Your task to perform on an android device: see sites visited before in the chrome app Image 0: 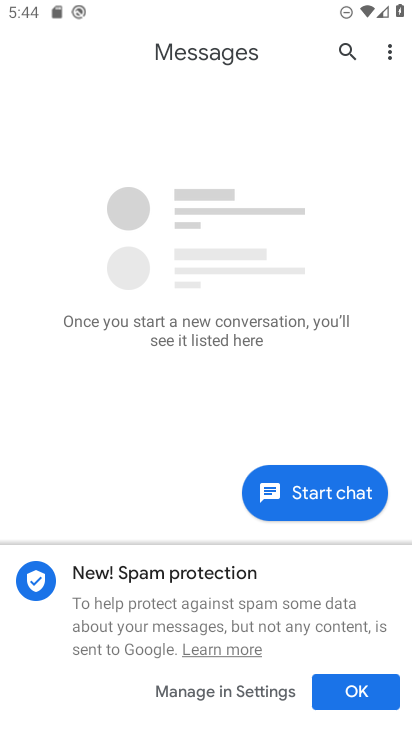
Step 0: press home button
Your task to perform on an android device: see sites visited before in the chrome app Image 1: 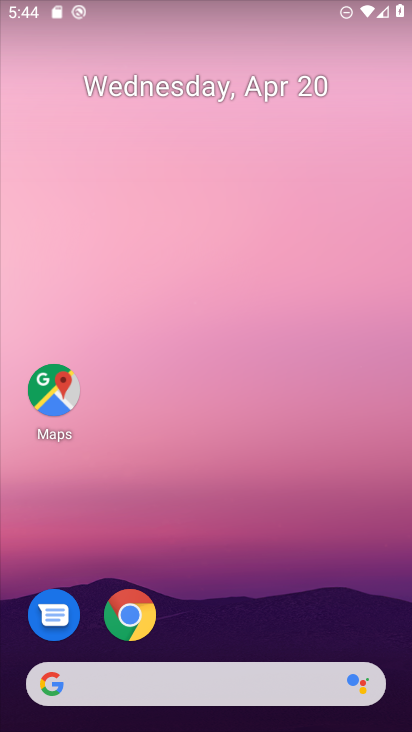
Step 1: click (128, 609)
Your task to perform on an android device: see sites visited before in the chrome app Image 2: 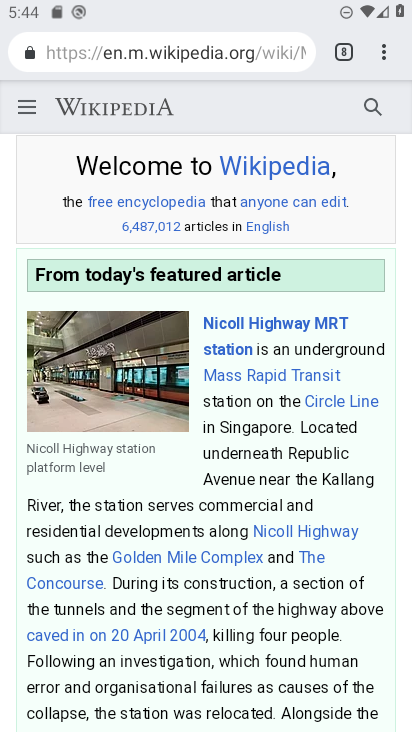
Step 2: click (386, 52)
Your task to perform on an android device: see sites visited before in the chrome app Image 3: 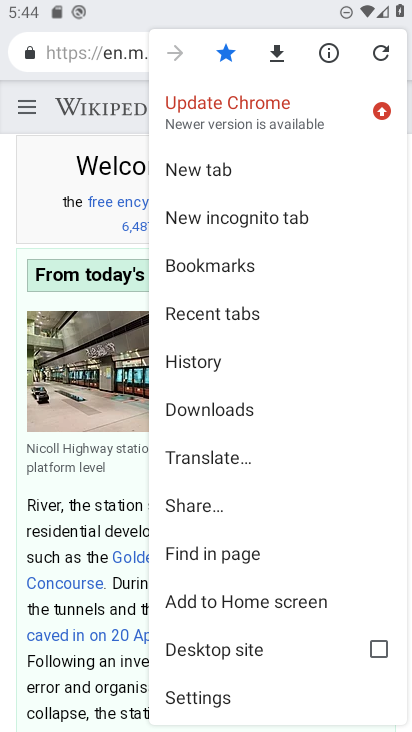
Step 3: click (200, 359)
Your task to perform on an android device: see sites visited before in the chrome app Image 4: 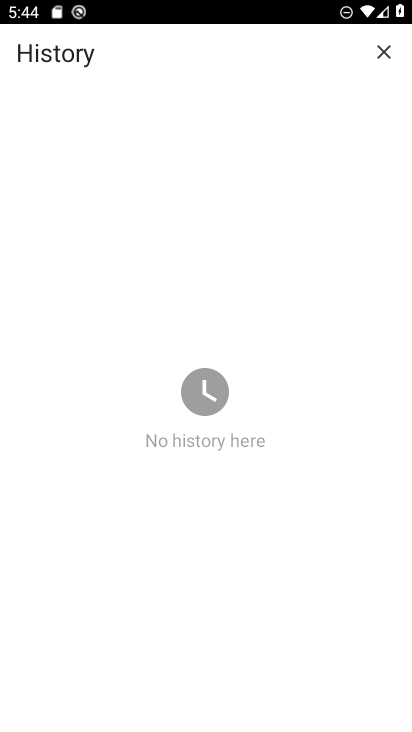
Step 4: task complete